Your task to perform on an android device: Add "bose soundlink" to the cart on amazon Image 0: 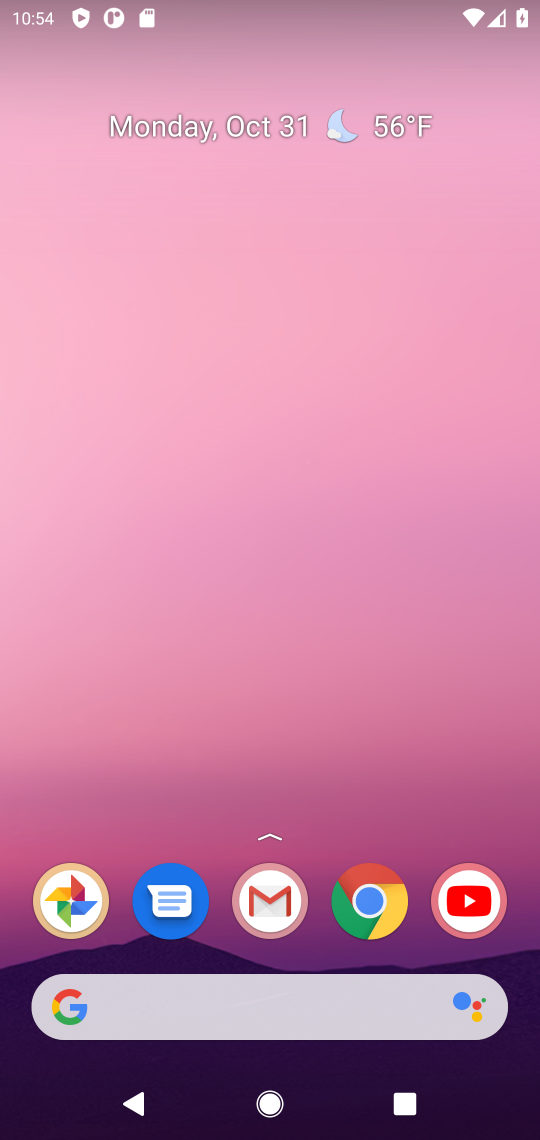
Step 0: drag from (129, 943) to (324, 291)
Your task to perform on an android device: Add "bose soundlink" to the cart on amazon Image 1: 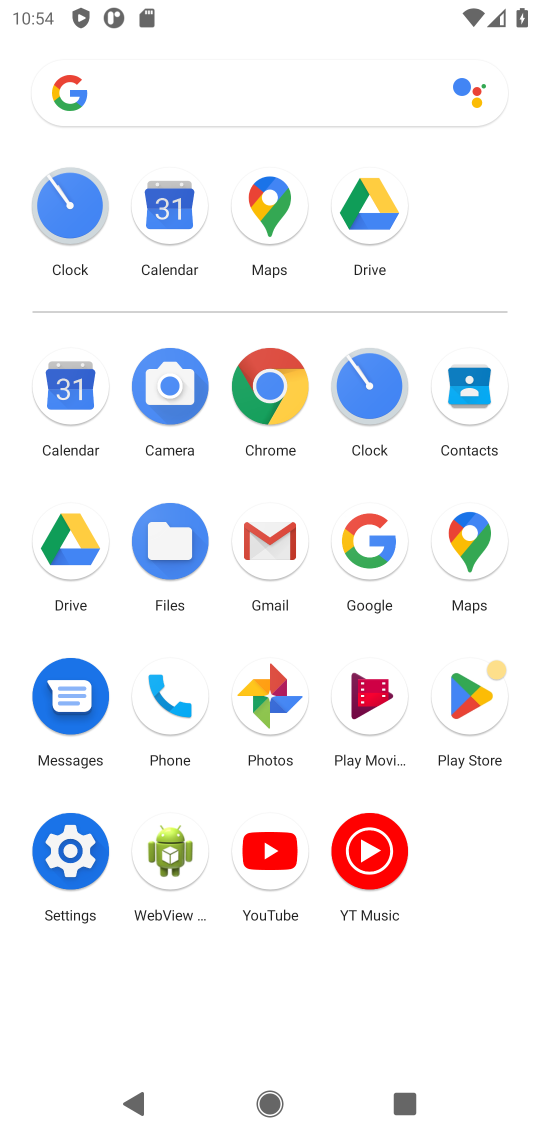
Step 1: click (370, 536)
Your task to perform on an android device: Add "bose soundlink" to the cart on amazon Image 2: 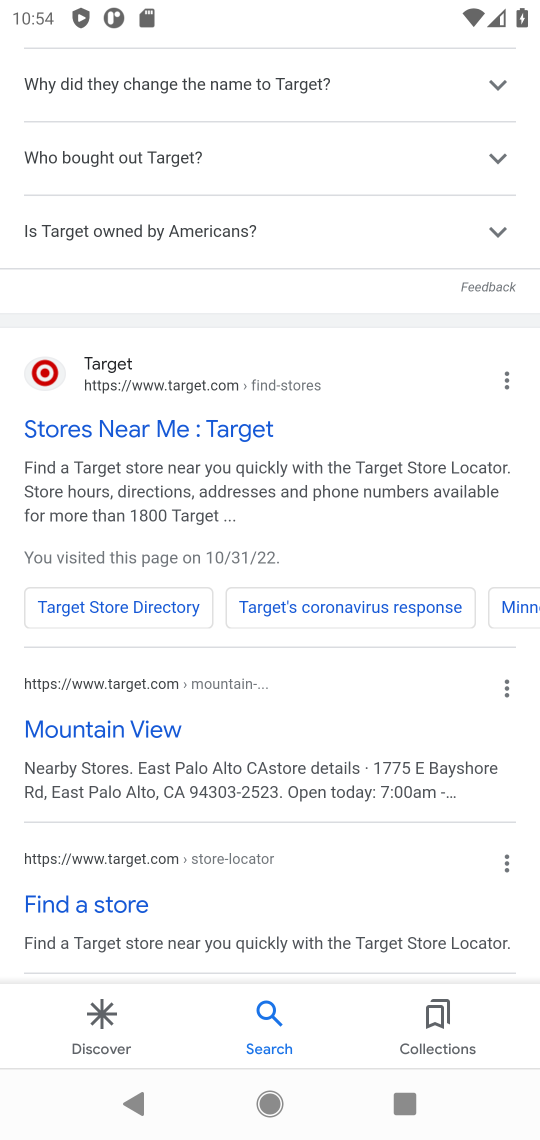
Step 2: drag from (218, 102) to (177, 933)
Your task to perform on an android device: Add "bose soundlink" to the cart on amazon Image 3: 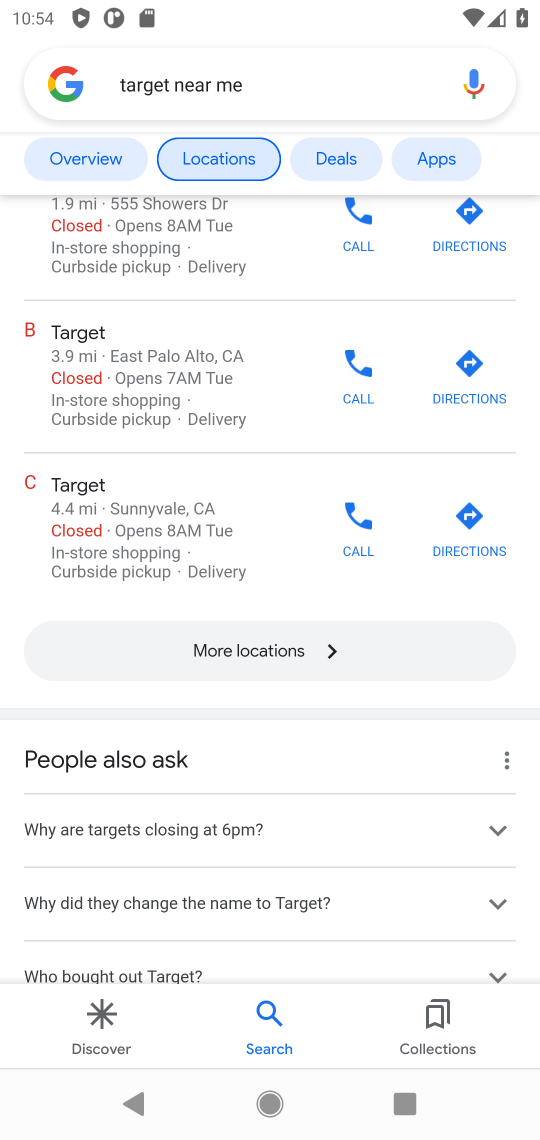
Step 3: click (219, 85)
Your task to perform on an android device: Add "bose soundlink" to the cart on amazon Image 4: 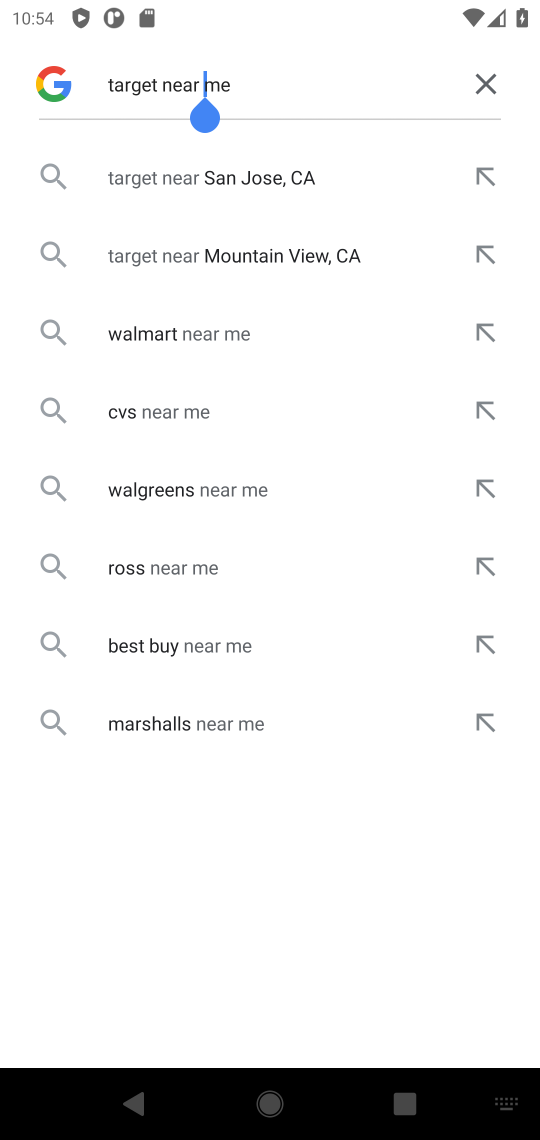
Step 4: click (496, 96)
Your task to perform on an android device: Add "bose soundlink" to the cart on amazon Image 5: 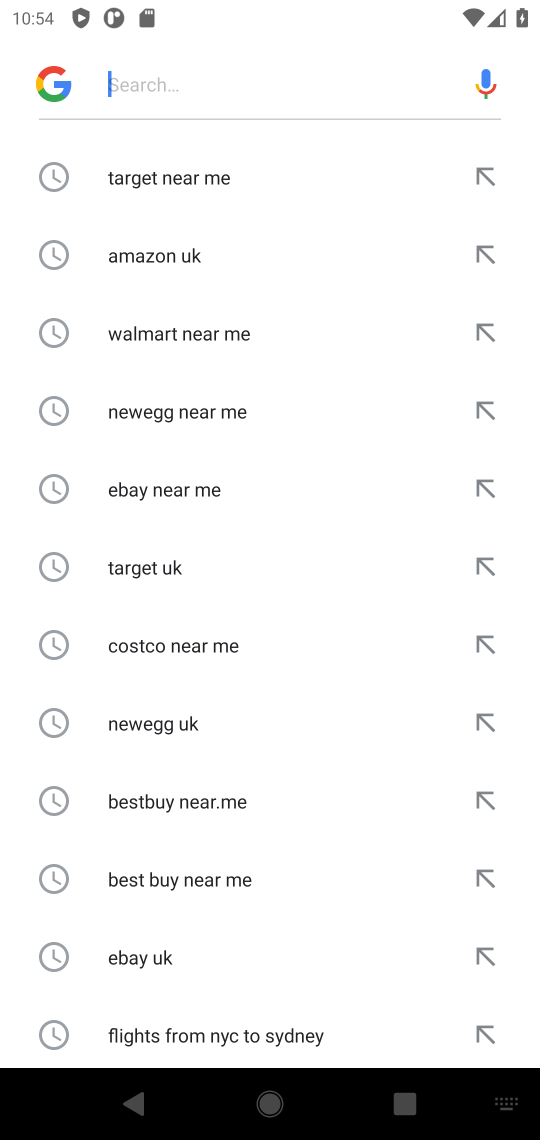
Step 5: click (154, 244)
Your task to perform on an android device: Add "bose soundlink" to the cart on amazon Image 6: 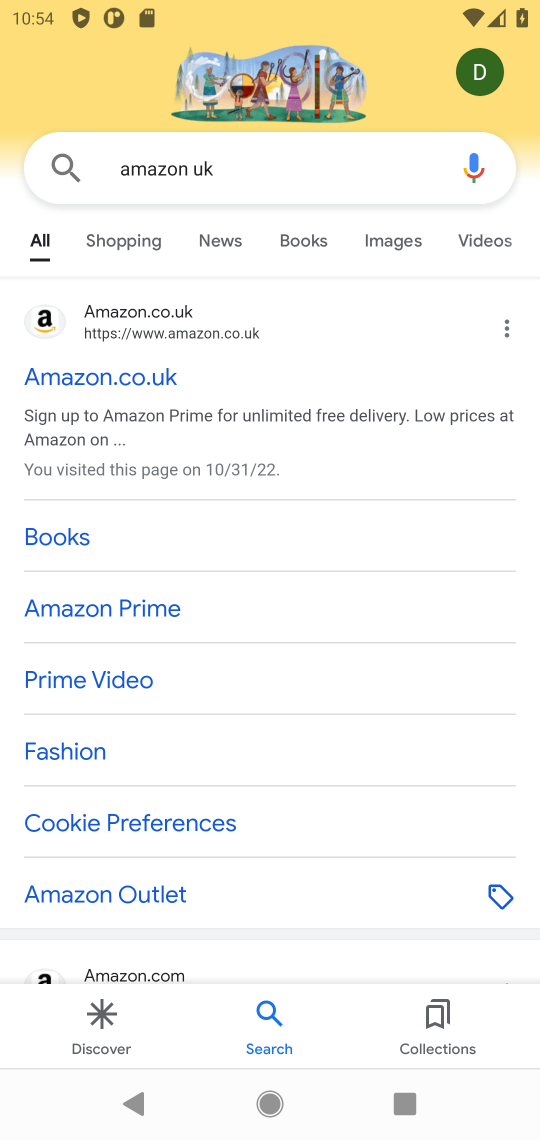
Step 6: click (139, 378)
Your task to perform on an android device: Add "bose soundlink" to the cart on amazon Image 7: 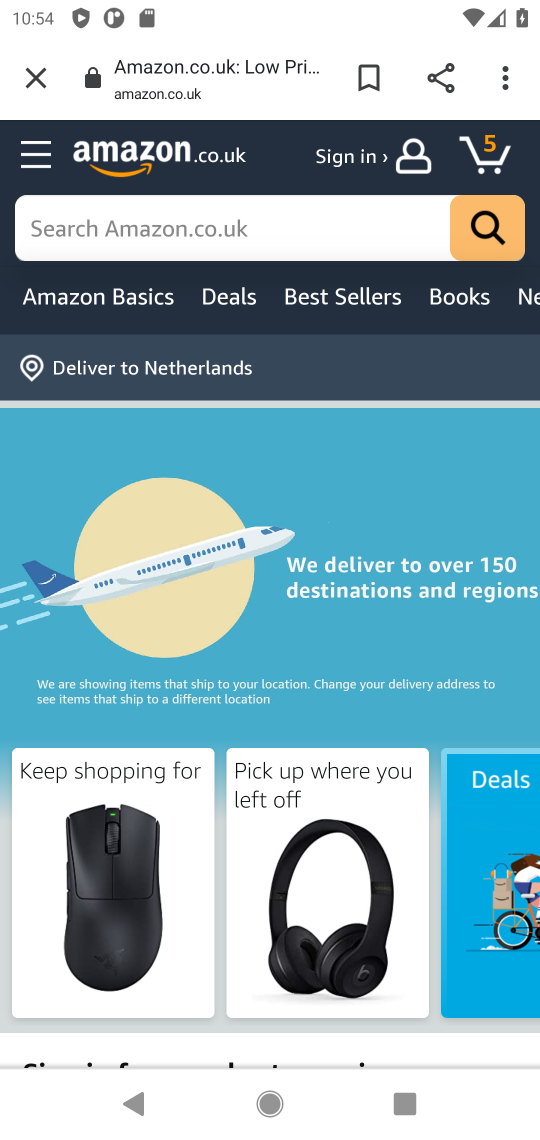
Step 7: click (165, 211)
Your task to perform on an android device: Add "bose soundlink" to the cart on amazon Image 8: 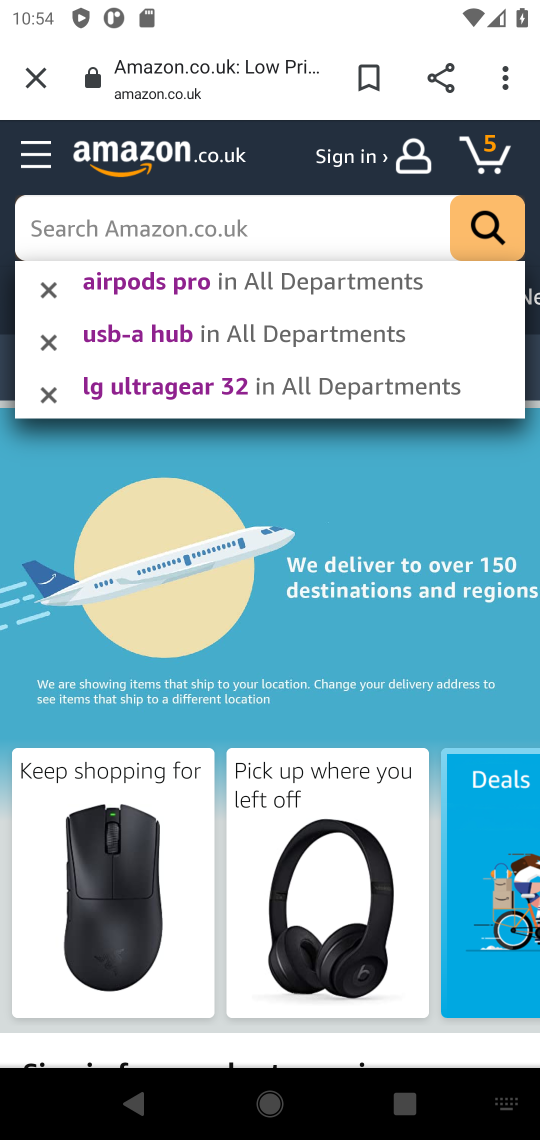
Step 8: click (258, 213)
Your task to perform on an android device: Add "bose soundlink" to the cart on amazon Image 9: 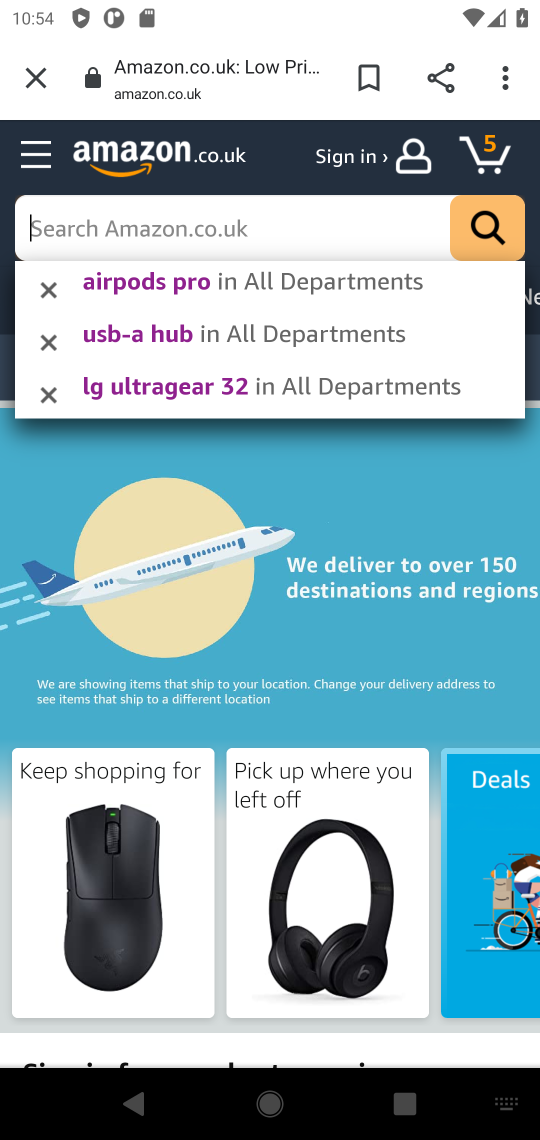
Step 9: type "bose soundlink "
Your task to perform on an android device: Add "bose soundlink" to the cart on amazon Image 10: 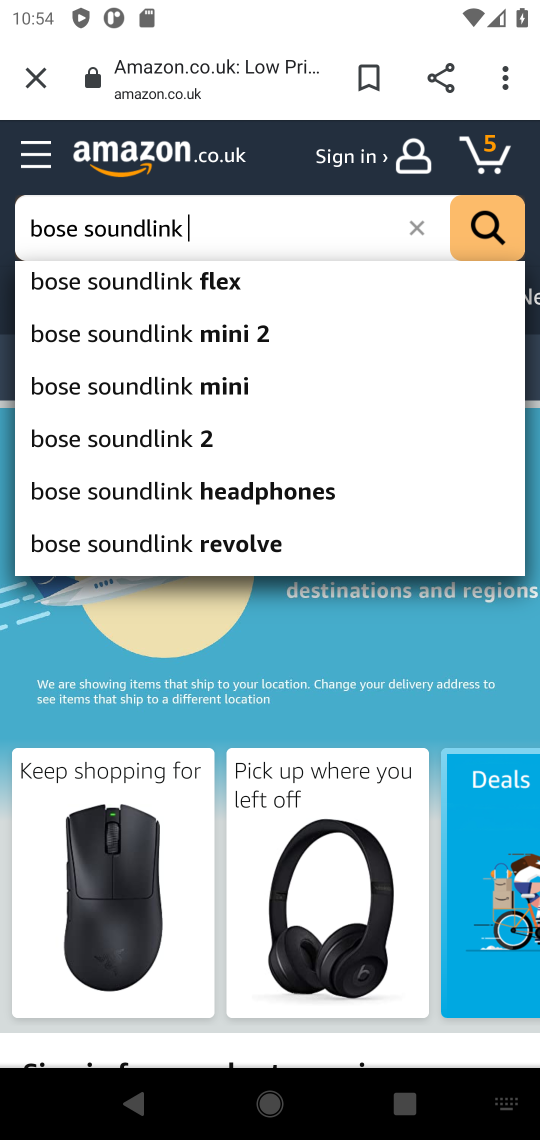
Step 10: click (147, 440)
Your task to perform on an android device: Add "bose soundlink" to the cart on amazon Image 11: 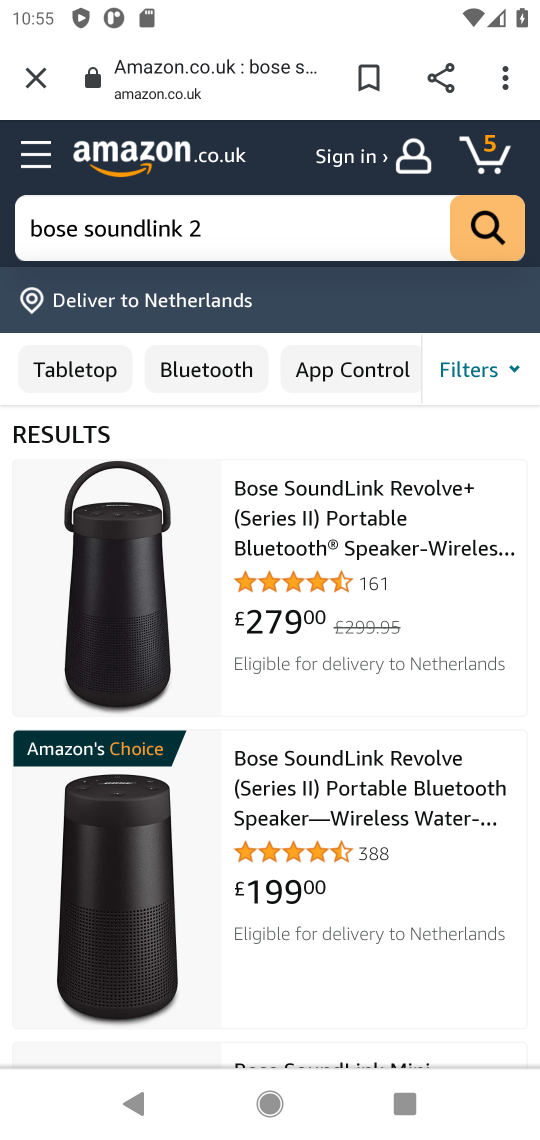
Step 11: click (334, 501)
Your task to perform on an android device: Add "bose soundlink" to the cart on amazon Image 12: 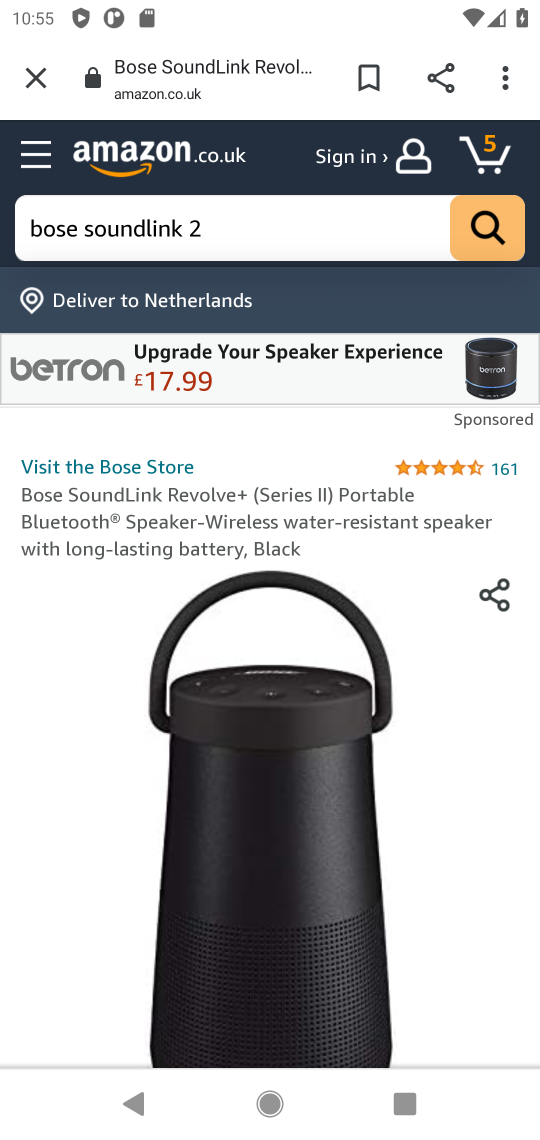
Step 12: drag from (287, 893) to (324, 382)
Your task to perform on an android device: Add "bose soundlink" to the cart on amazon Image 13: 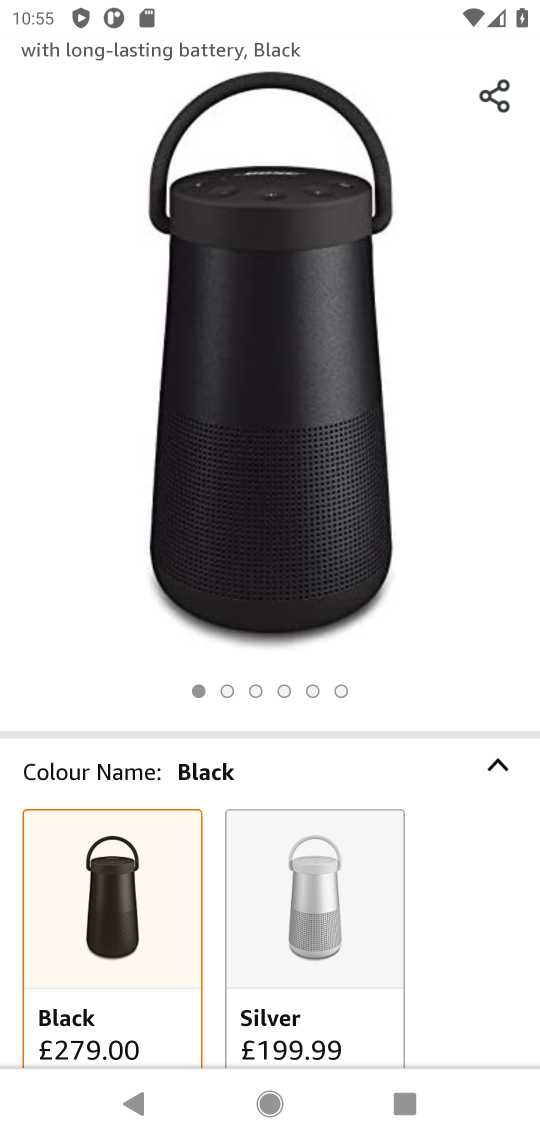
Step 13: drag from (299, 975) to (312, 348)
Your task to perform on an android device: Add "bose soundlink" to the cart on amazon Image 14: 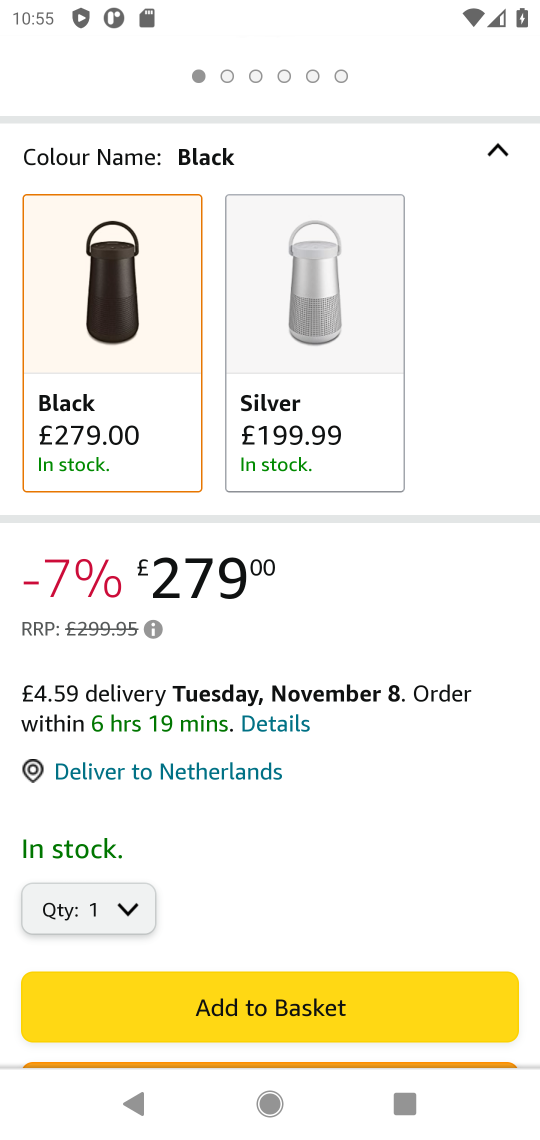
Step 14: click (254, 1015)
Your task to perform on an android device: Add "bose soundlink" to the cart on amazon Image 15: 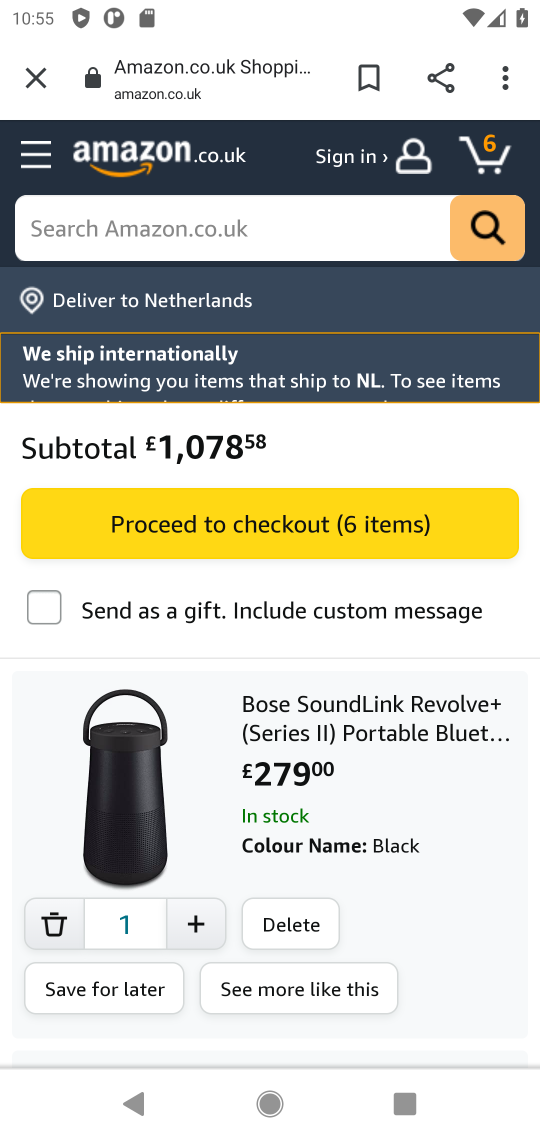
Step 15: task complete